Your task to perform on an android device: change the upload size in google photos Image 0: 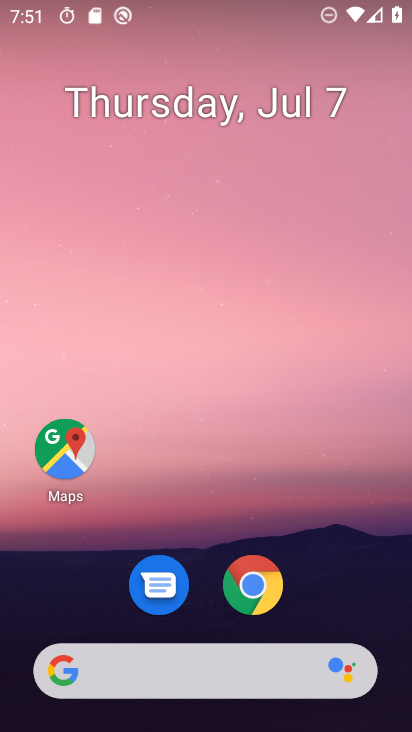
Step 0: drag from (207, 669) to (376, 167)
Your task to perform on an android device: change the upload size in google photos Image 1: 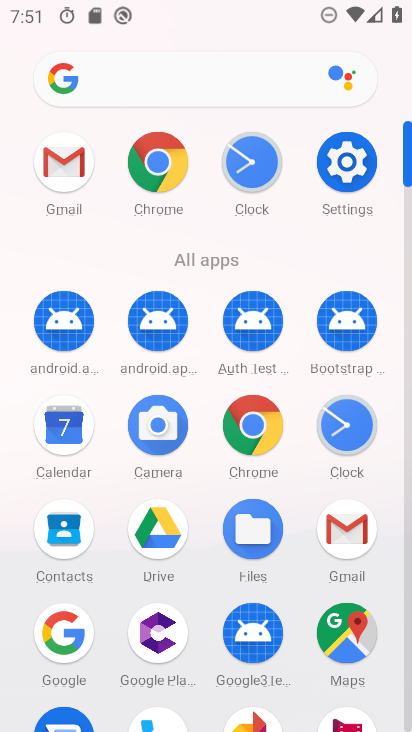
Step 1: drag from (210, 689) to (354, 209)
Your task to perform on an android device: change the upload size in google photos Image 2: 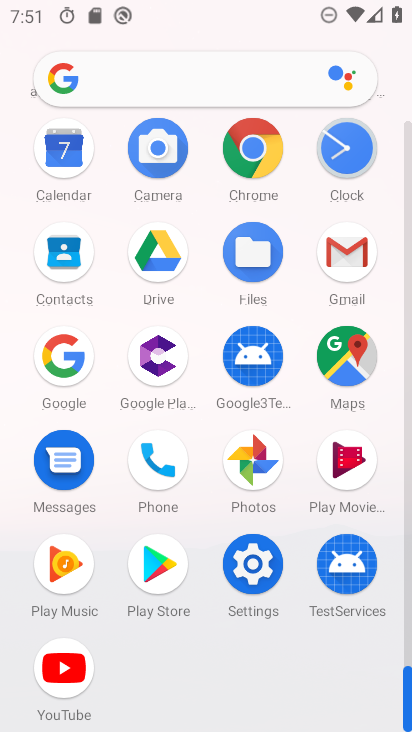
Step 2: click (253, 458)
Your task to perform on an android device: change the upload size in google photos Image 3: 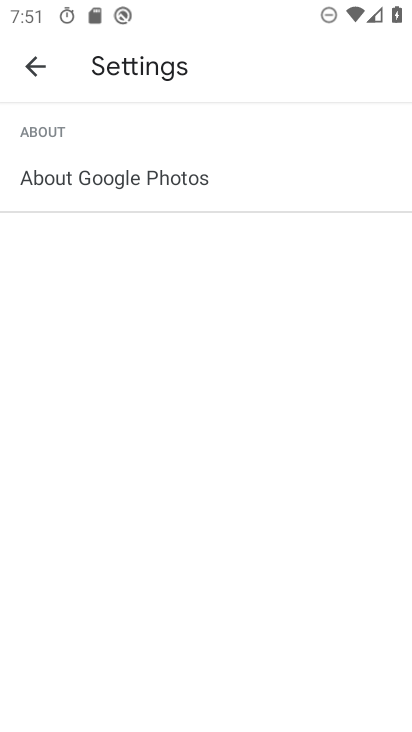
Step 3: click (35, 68)
Your task to perform on an android device: change the upload size in google photos Image 4: 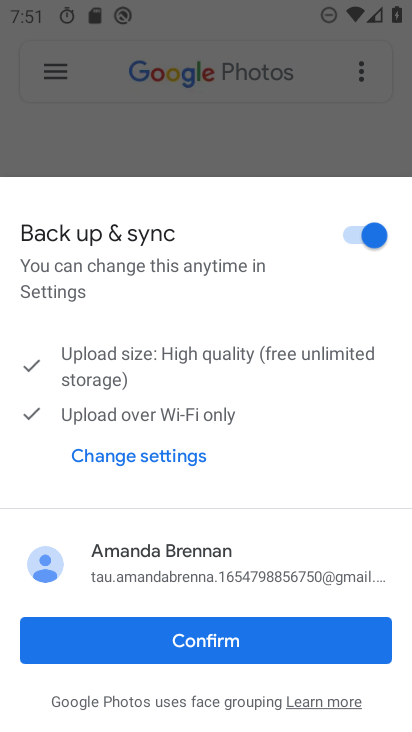
Step 4: click (203, 638)
Your task to perform on an android device: change the upload size in google photos Image 5: 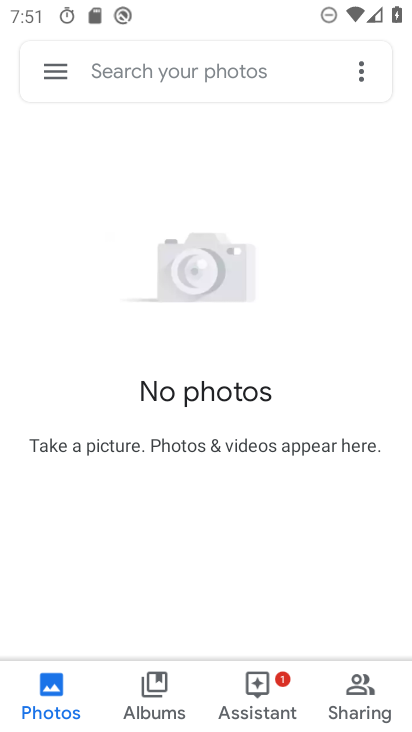
Step 5: click (61, 70)
Your task to perform on an android device: change the upload size in google photos Image 6: 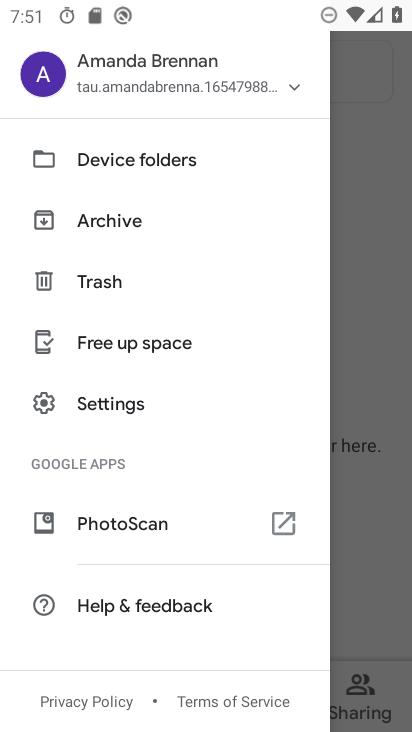
Step 6: click (119, 407)
Your task to perform on an android device: change the upload size in google photos Image 7: 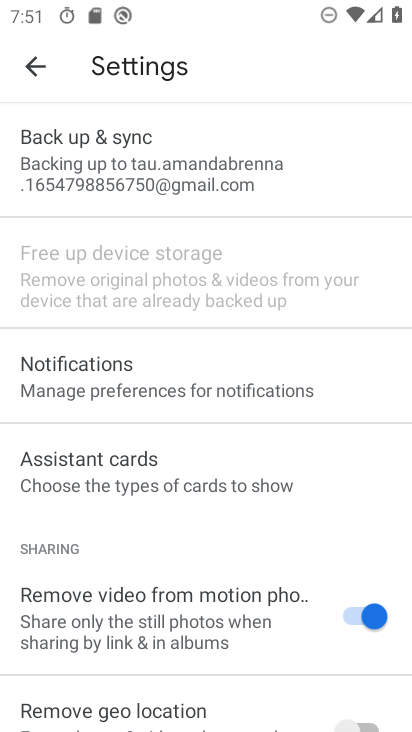
Step 7: drag from (146, 524) to (163, 595)
Your task to perform on an android device: change the upload size in google photos Image 8: 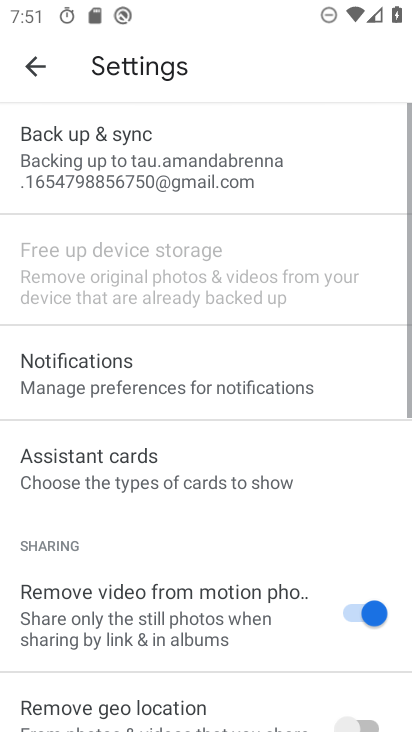
Step 8: click (295, 164)
Your task to perform on an android device: change the upload size in google photos Image 9: 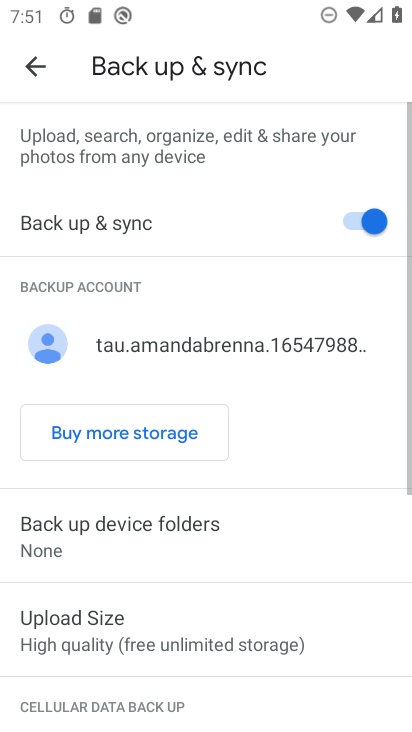
Step 9: drag from (227, 431) to (326, 244)
Your task to perform on an android device: change the upload size in google photos Image 10: 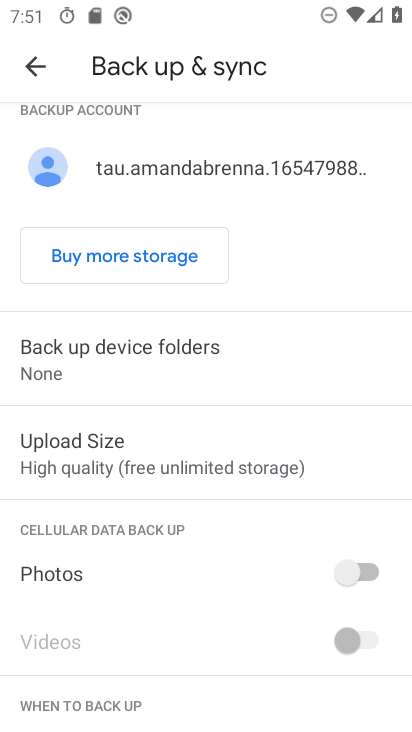
Step 10: click (165, 443)
Your task to perform on an android device: change the upload size in google photos Image 11: 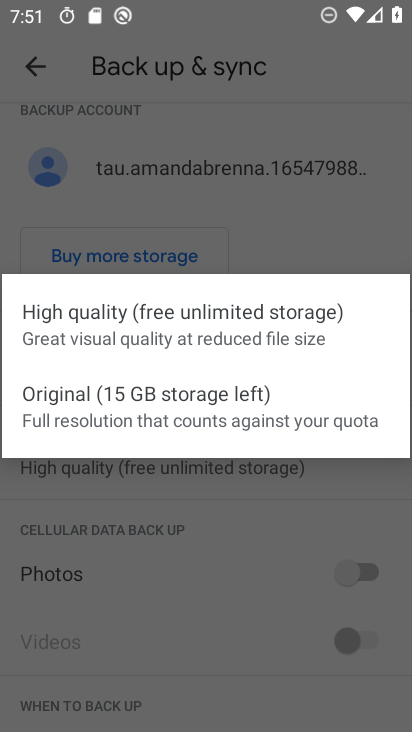
Step 11: click (105, 406)
Your task to perform on an android device: change the upload size in google photos Image 12: 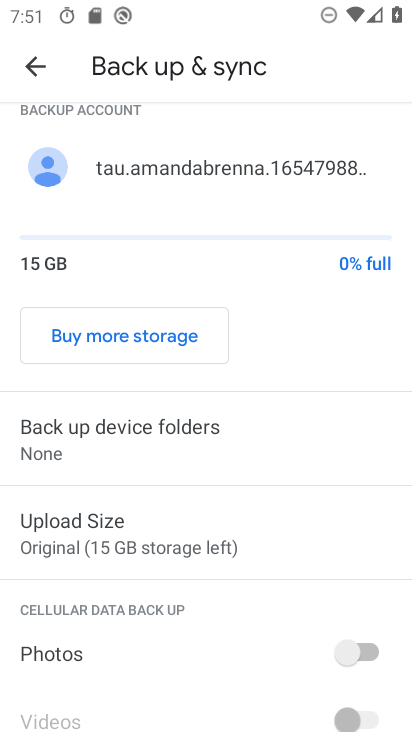
Step 12: task complete